Your task to perform on an android device: change the clock display to show seconds Image 0: 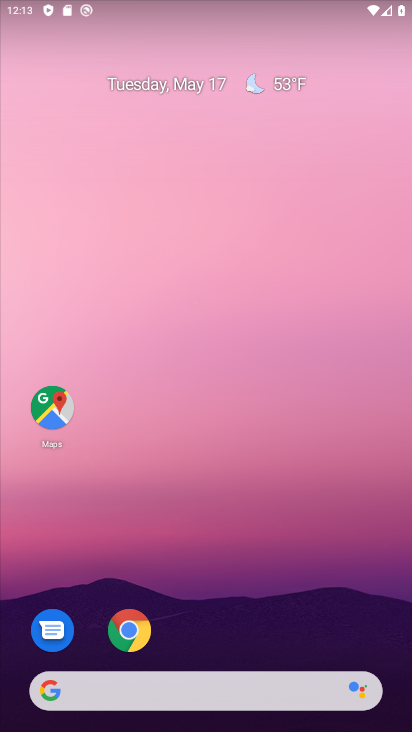
Step 0: drag from (248, 608) to (260, 293)
Your task to perform on an android device: change the clock display to show seconds Image 1: 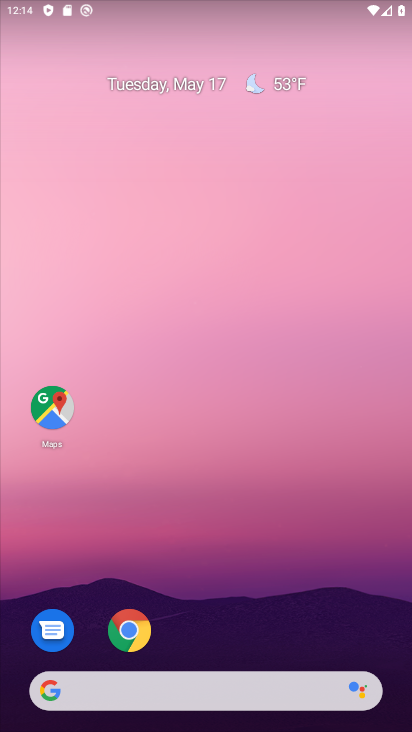
Step 1: drag from (184, 655) to (233, 252)
Your task to perform on an android device: change the clock display to show seconds Image 2: 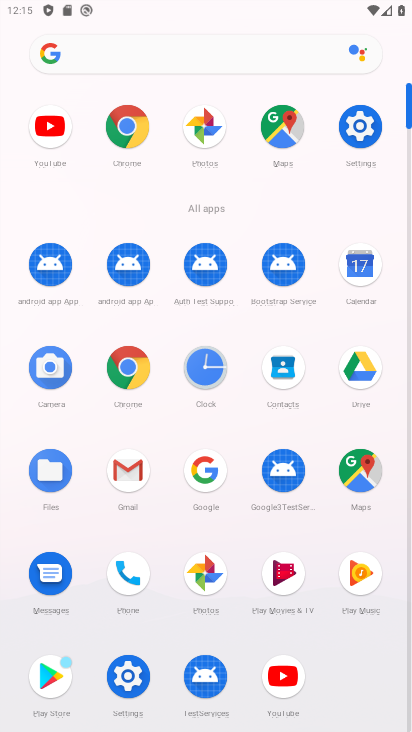
Step 2: click (205, 364)
Your task to perform on an android device: change the clock display to show seconds Image 3: 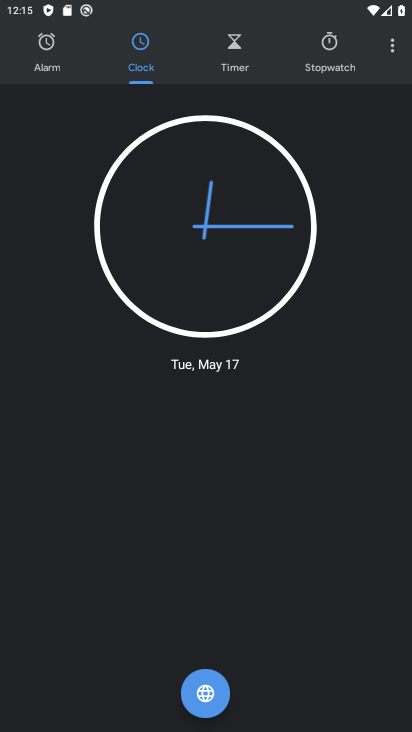
Step 3: click (391, 52)
Your task to perform on an android device: change the clock display to show seconds Image 4: 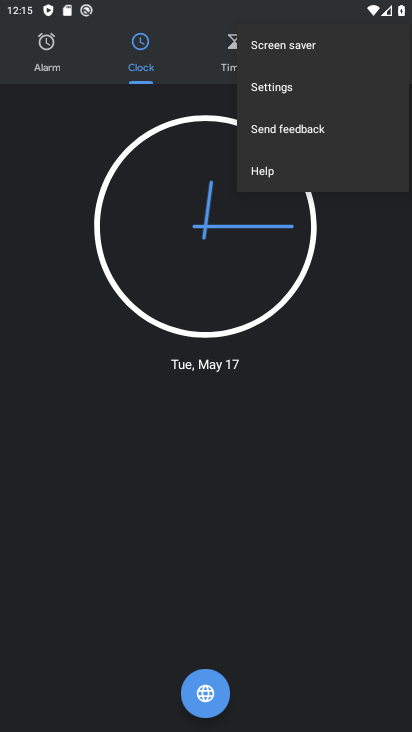
Step 4: click (294, 82)
Your task to perform on an android device: change the clock display to show seconds Image 5: 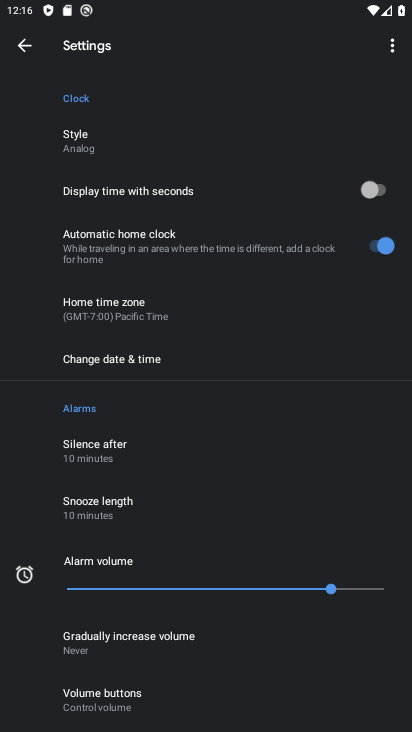
Step 5: click (207, 197)
Your task to perform on an android device: change the clock display to show seconds Image 6: 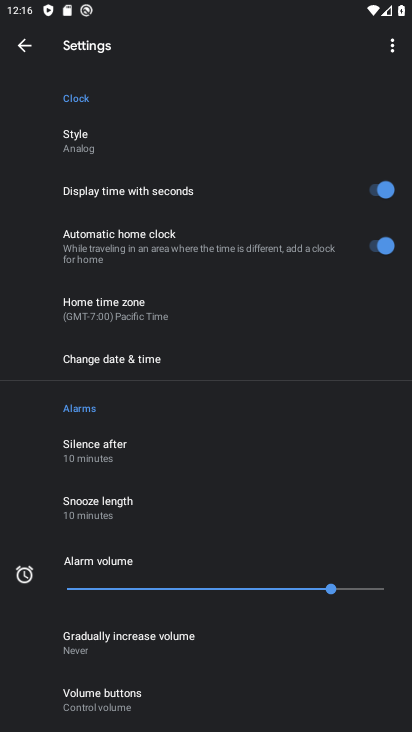
Step 6: task complete